Your task to perform on an android device: Go to wifi settings Image 0: 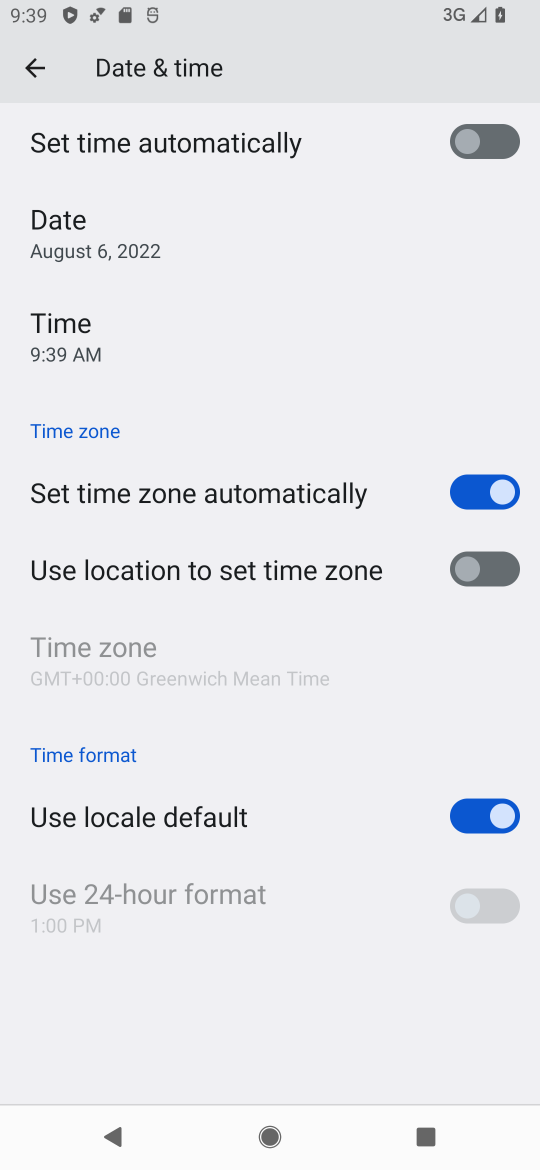
Step 0: press home button
Your task to perform on an android device: Go to wifi settings Image 1: 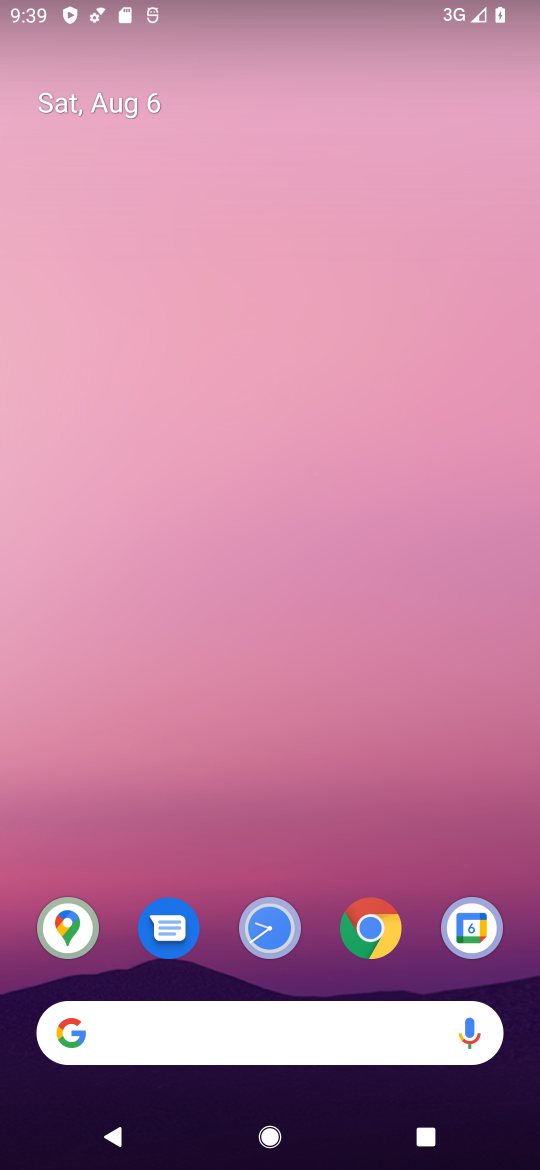
Step 1: drag from (275, 795) to (258, 108)
Your task to perform on an android device: Go to wifi settings Image 2: 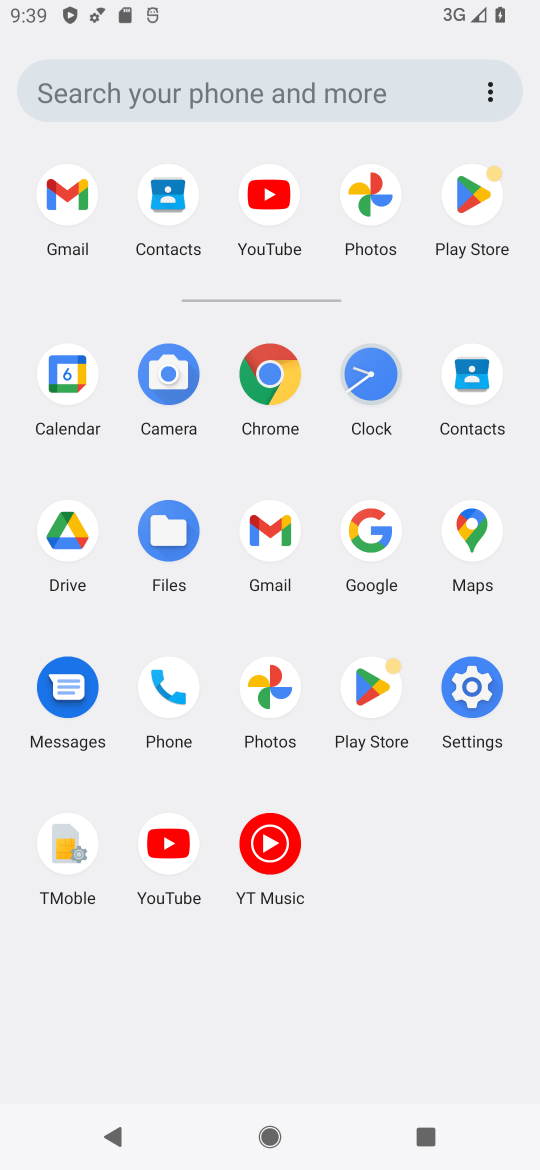
Step 2: click (479, 691)
Your task to perform on an android device: Go to wifi settings Image 3: 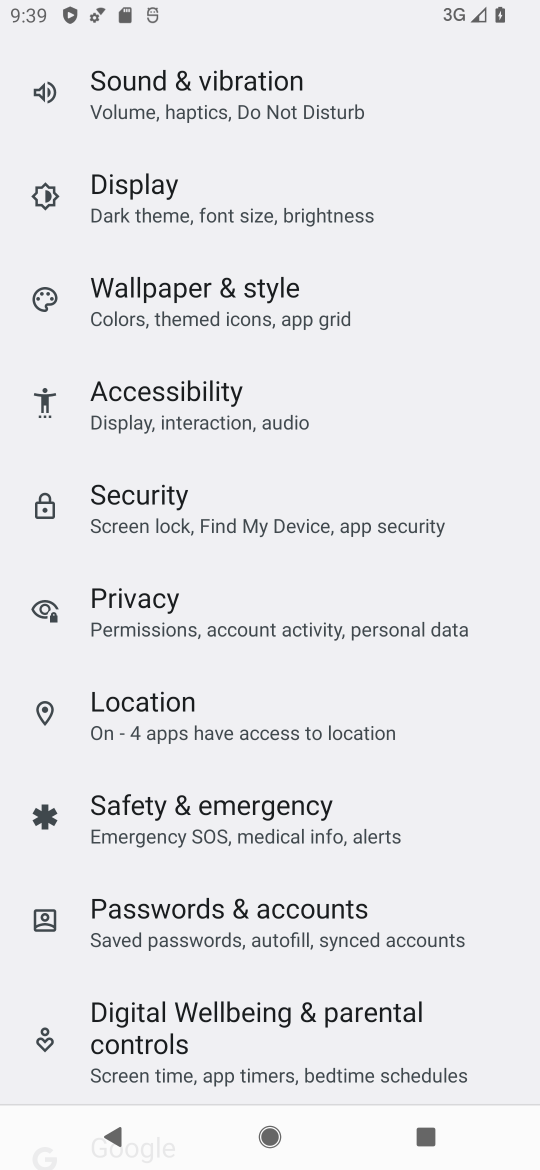
Step 3: drag from (369, 225) to (369, 776)
Your task to perform on an android device: Go to wifi settings Image 4: 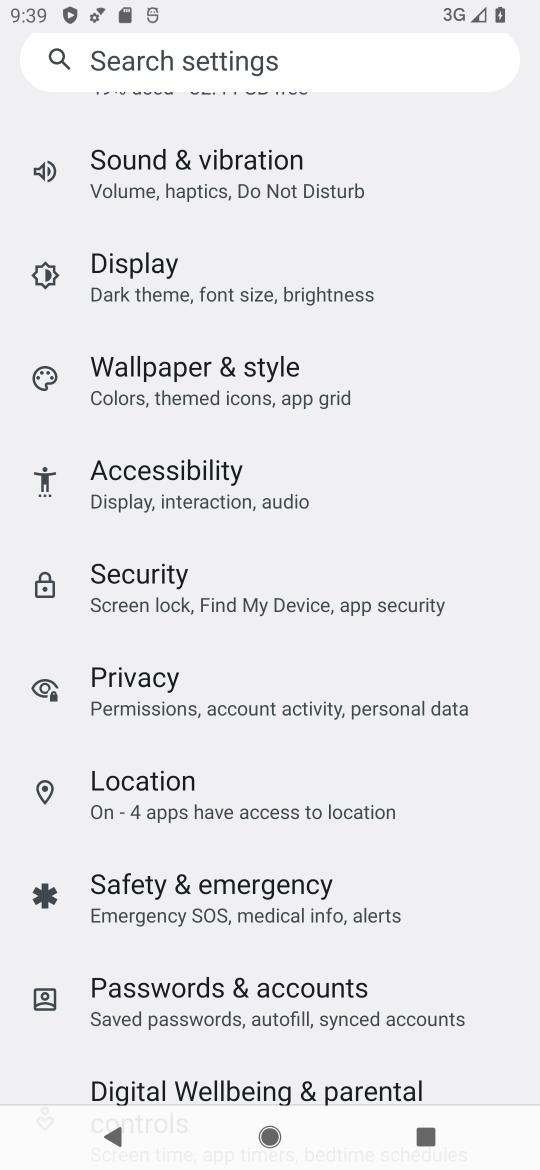
Step 4: drag from (334, 239) to (296, 925)
Your task to perform on an android device: Go to wifi settings Image 5: 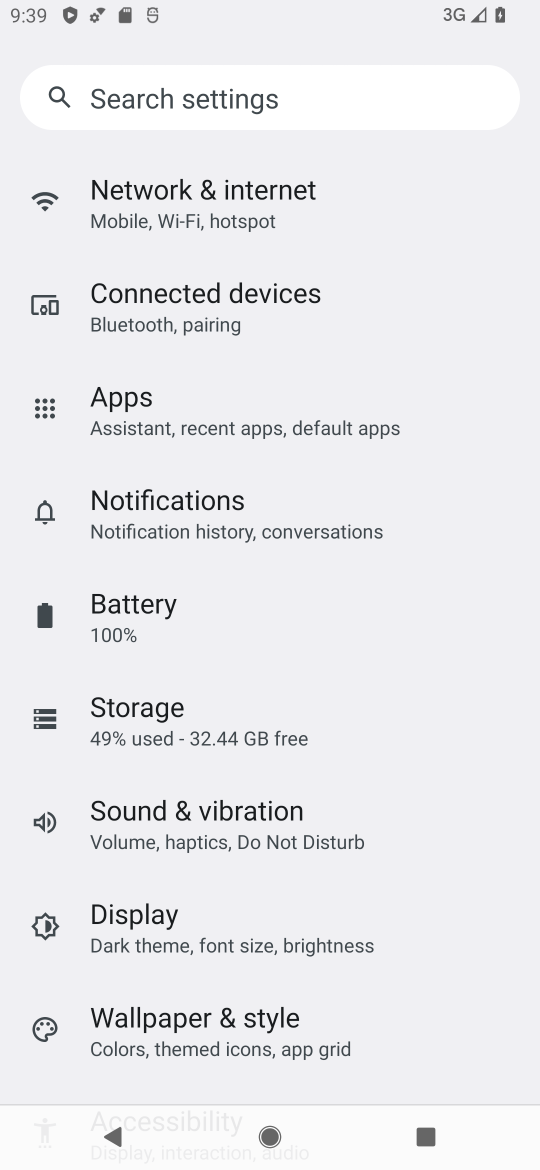
Step 5: click (186, 181)
Your task to perform on an android device: Go to wifi settings Image 6: 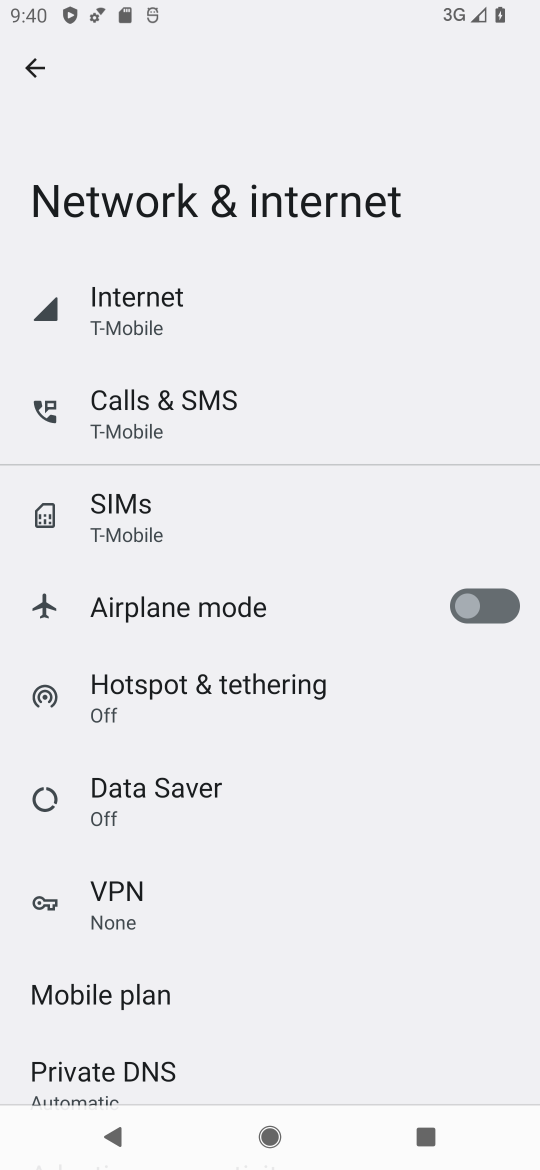
Step 6: click (157, 292)
Your task to perform on an android device: Go to wifi settings Image 7: 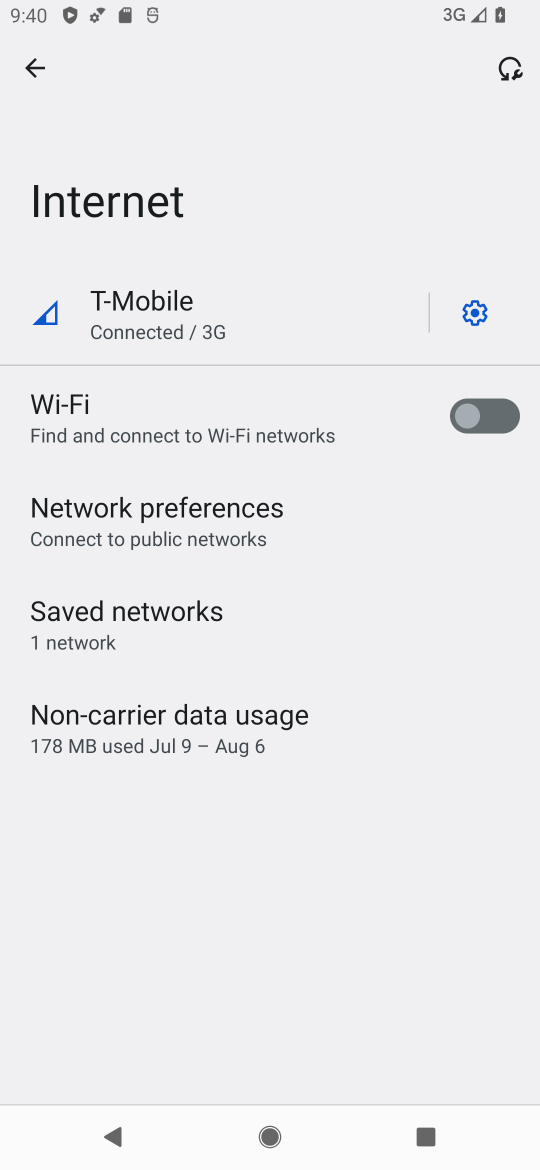
Step 7: task complete